Your task to perform on an android device: Open network settings Image 0: 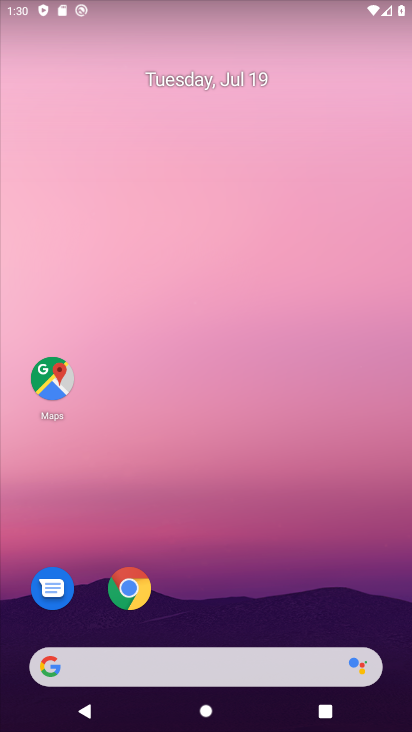
Step 0: drag from (182, 613) to (171, 510)
Your task to perform on an android device: Open network settings Image 1: 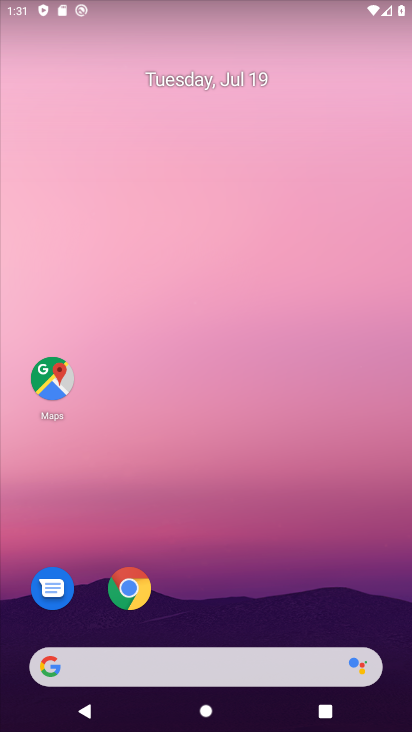
Step 1: drag from (184, 617) to (216, 275)
Your task to perform on an android device: Open network settings Image 2: 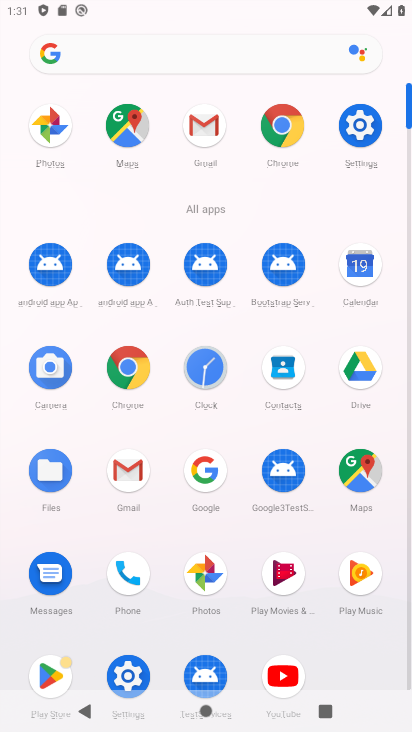
Step 2: click (363, 116)
Your task to perform on an android device: Open network settings Image 3: 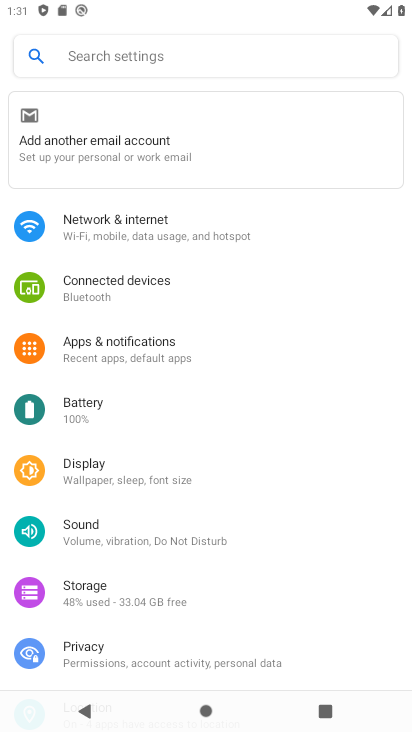
Step 3: click (142, 230)
Your task to perform on an android device: Open network settings Image 4: 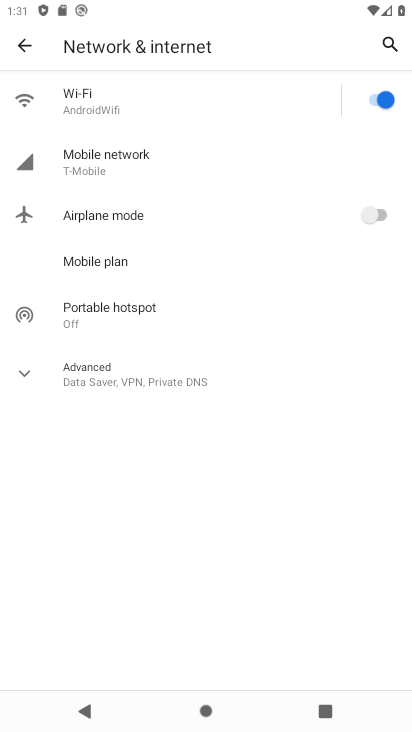
Step 4: task complete